Your task to perform on an android device: Do I have any events this weekend? Image 0: 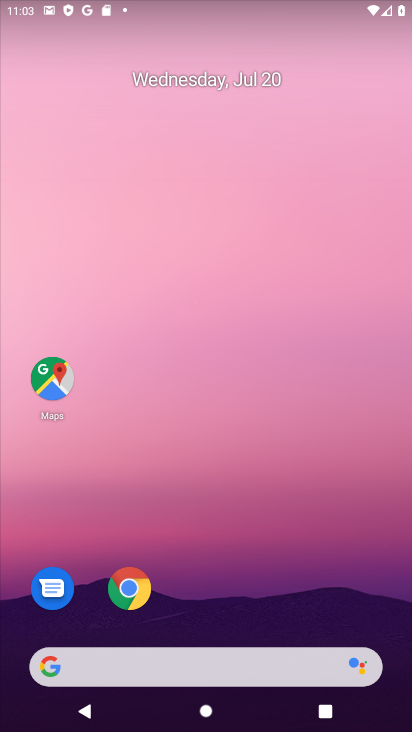
Step 0: drag from (184, 484) to (187, 204)
Your task to perform on an android device: Do I have any events this weekend? Image 1: 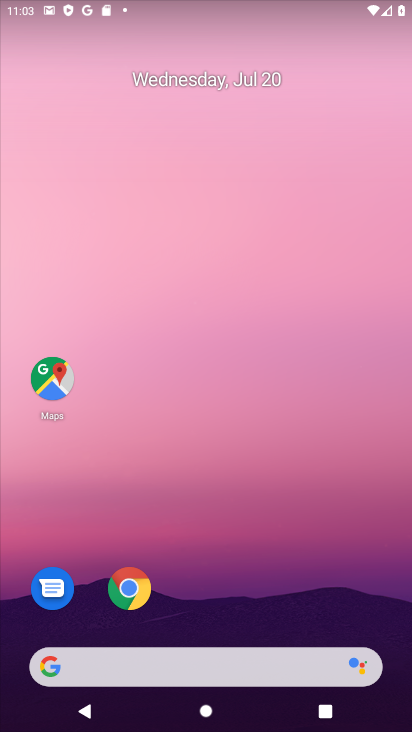
Step 1: drag from (181, 621) to (196, 59)
Your task to perform on an android device: Do I have any events this weekend? Image 2: 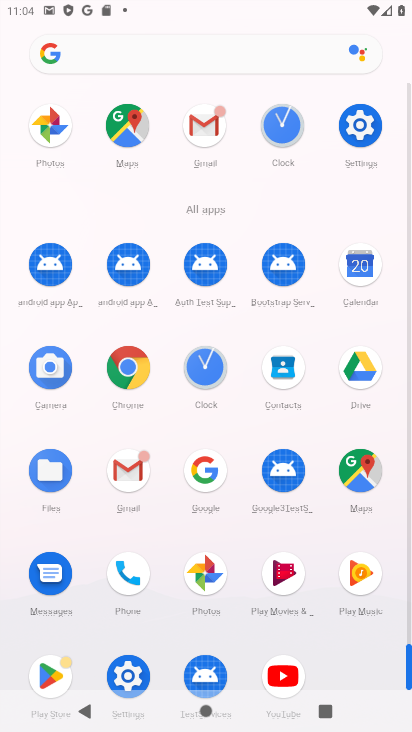
Step 2: click (361, 273)
Your task to perform on an android device: Do I have any events this weekend? Image 3: 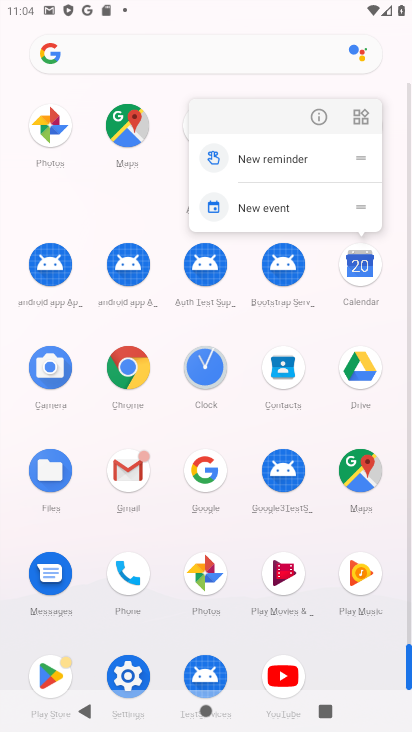
Step 3: click (315, 113)
Your task to perform on an android device: Do I have any events this weekend? Image 4: 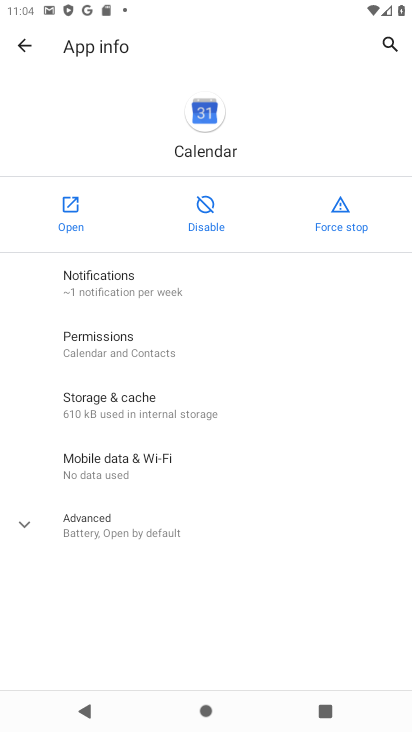
Step 4: click (62, 214)
Your task to perform on an android device: Do I have any events this weekend? Image 5: 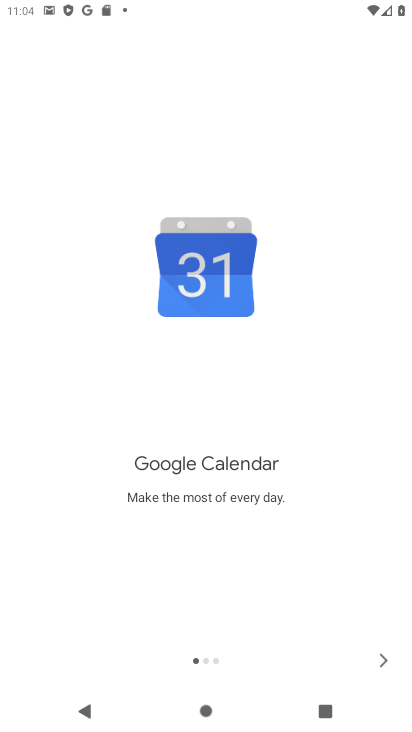
Step 5: click (375, 651)
Your task to perform on an android device: Do I have any events this weekend? Image 6: 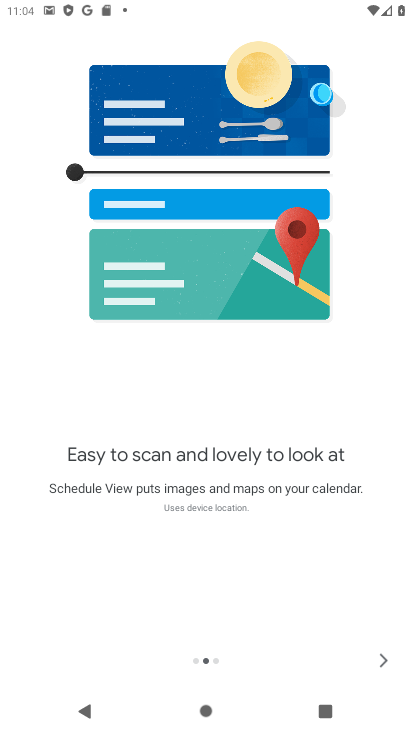
Step 6: click (373, 658)
Your task to perform on an android device: Do I have any events this weekend? Image 7: 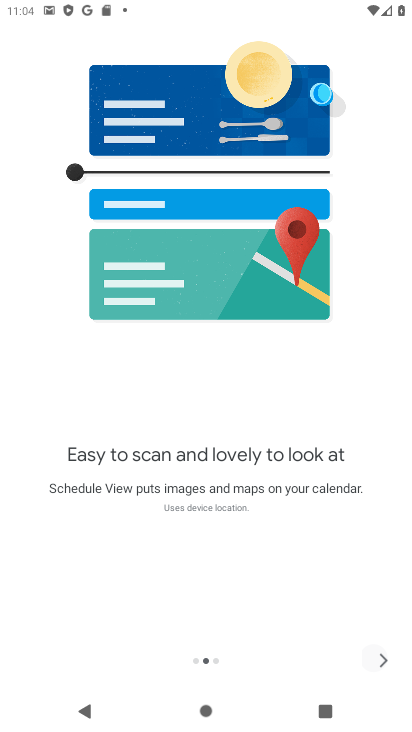
Step 7: click (383, 658)
Your task to perform on an android device: Do I have any events this weekend? Image 8: 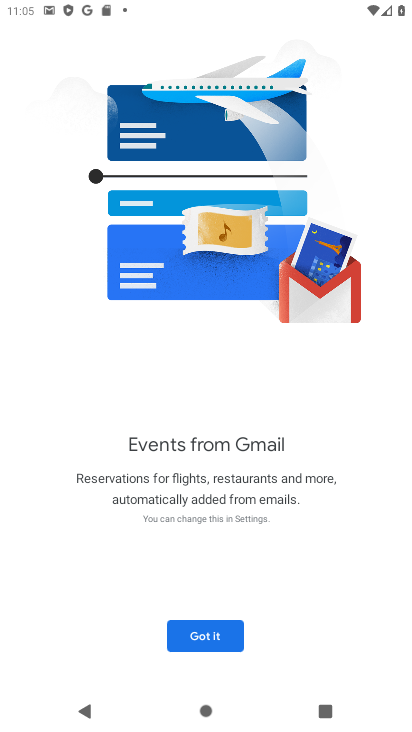
Step 8: click (207, 630)
Your task to perform on an android device: Do I have any events this weekend? Image 9: 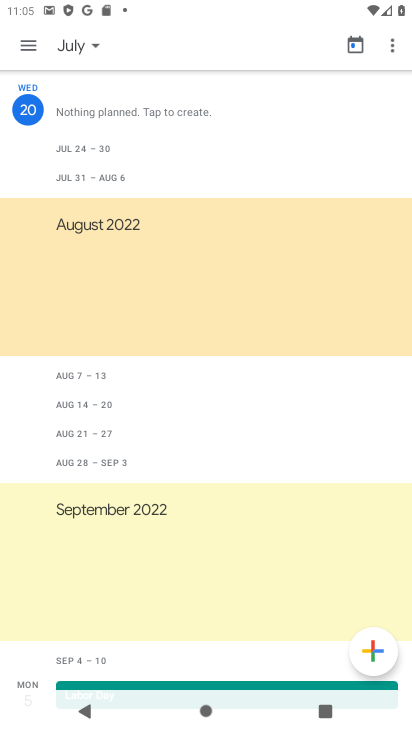
Step 9: click (84, 50)
Your task to perform on an android device: Do I have any events this weekend? Image 10: 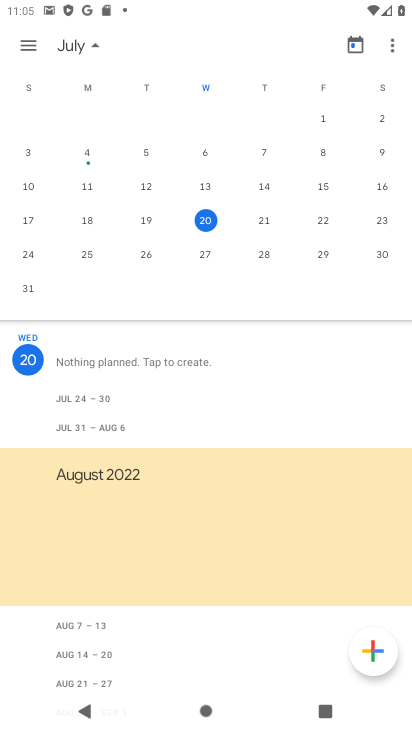
Step 10: click (383, 219)
Your task to perform on an android device: Do I have any events this weekend? Image 11: 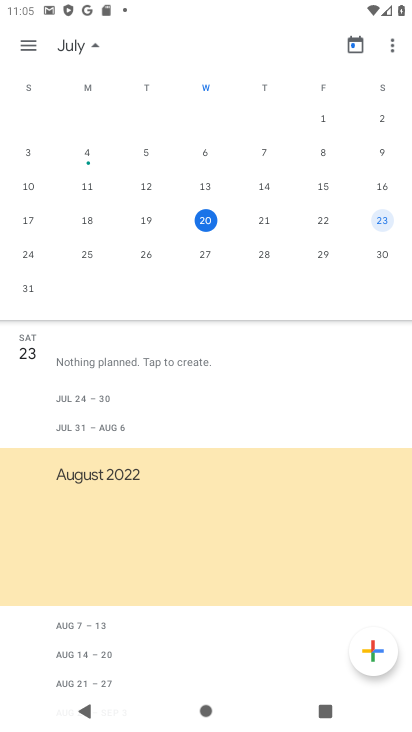
Step 11: task complete